Your task to perform on an android device: Open Amazon Image 0: 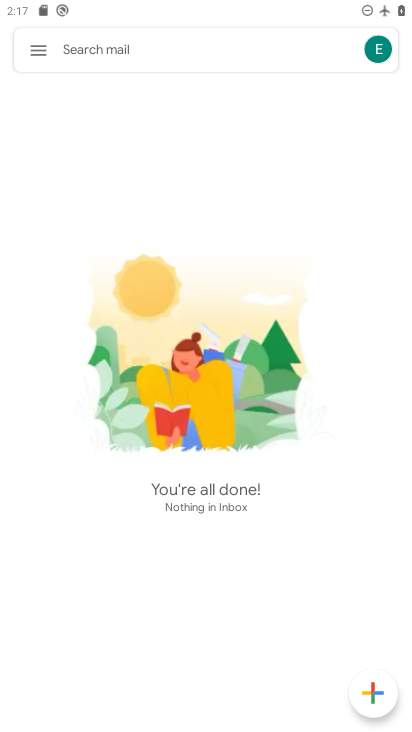
Step 0: press home button
Your task to perform on an android device: Open Amazon Image 1: 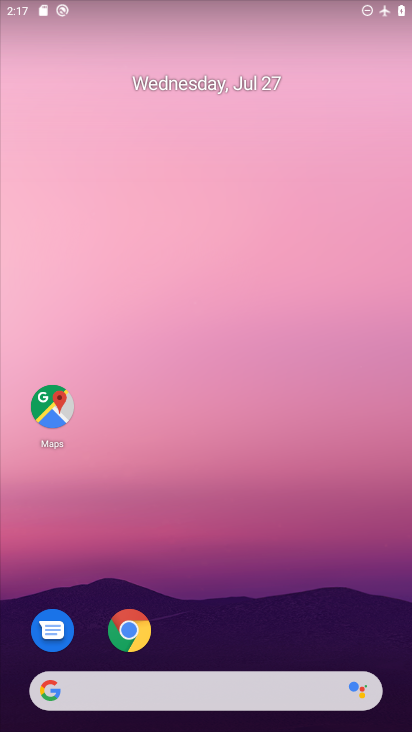
Step 1: click (127, 631)
Your task to perform on an android device: Open Amazon Image 2: 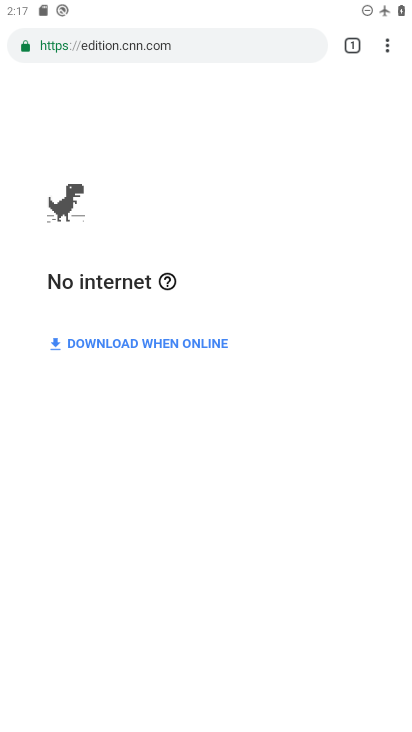
Step 2: click (201, 45)
Your task to perform on an android device: Open Amazon Image 3: 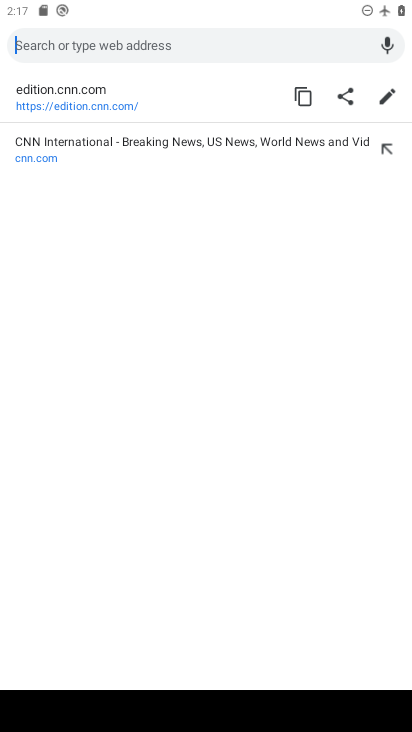
Step 3: type "amazon"
Your task to perform on an android device: Open Amazon Image 4: 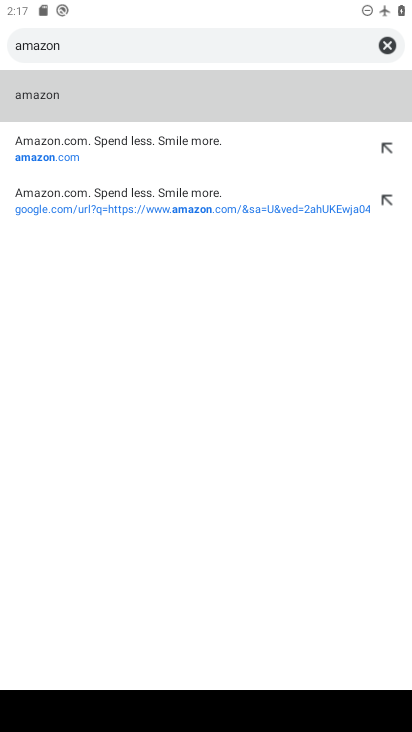
Step 4: click (54, 96)
Your task to perform on an android device: Open Amazon Image 5: 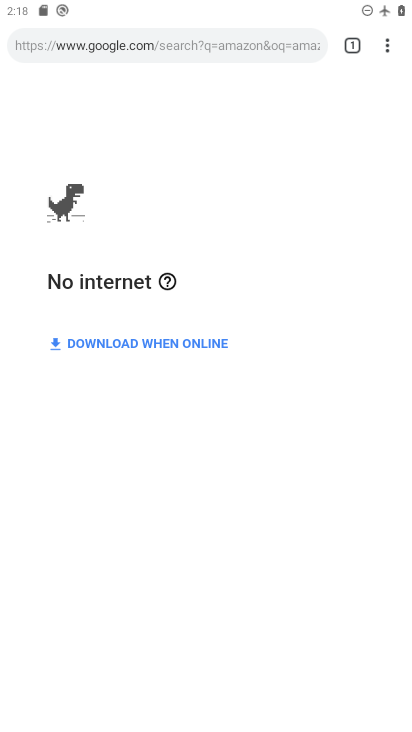
Step 5: task complete